Your task to perform on an android device: Check the settings for the Netflix app Image 0: 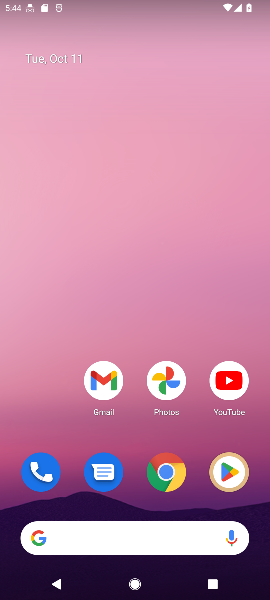
Step 0: click (225, 467)
Your task to perform on an android device: Check the settings for the Netflix app Image 1: 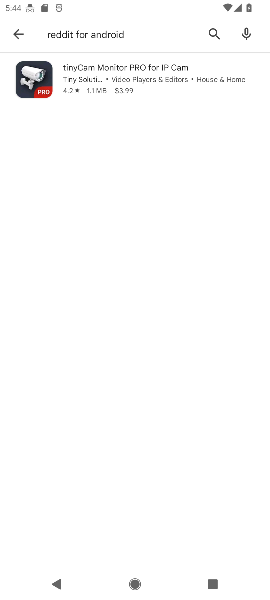
Step 1: click (210, 35)
Your task to perform on an android device: Check the settings for the Netflix app Image 2: 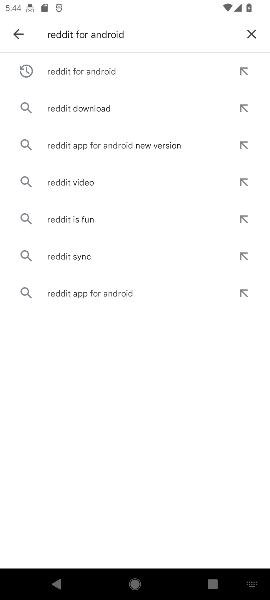
Step 2: click (253, 40)
Your task to perform on an android device: Check the settings for the Netflix app Image 3: 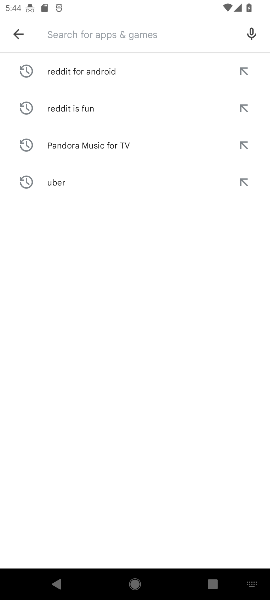
Step 3: type "netflix"
Your task to perform on an android device: Check the settings for the Netflix app Image 4: 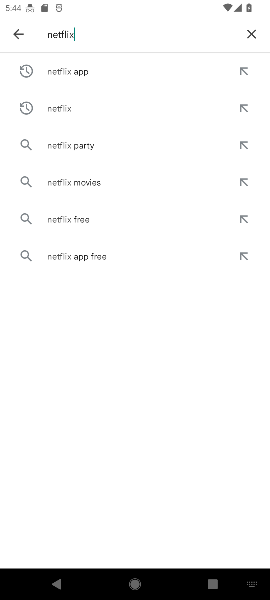
Step 4: click (189, 105)
Your task to perform on an android device: Check the settings for the Netflix app Image 5: 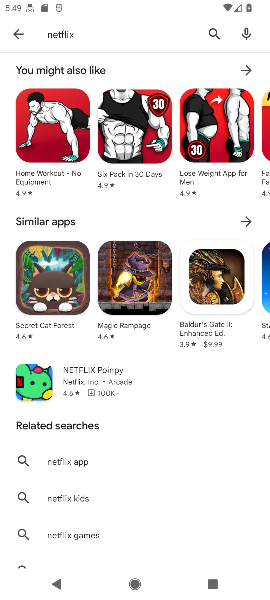
Step 5: task complete